Your task to perform on an android device: Open Reddit.com Image 0: 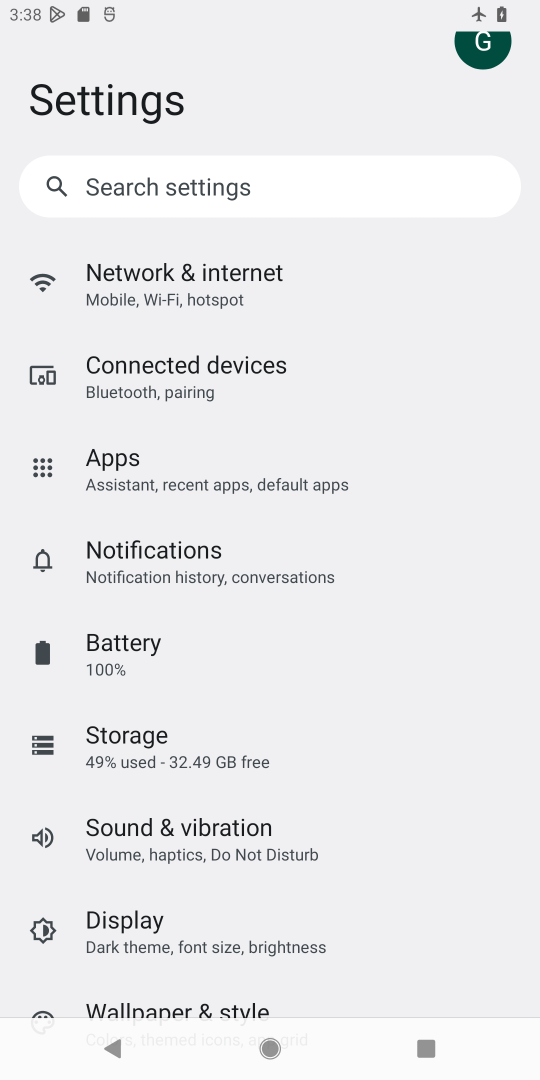
Step 0: press home button
Your task to perform on an android device: Open Reddit.com Image 1: 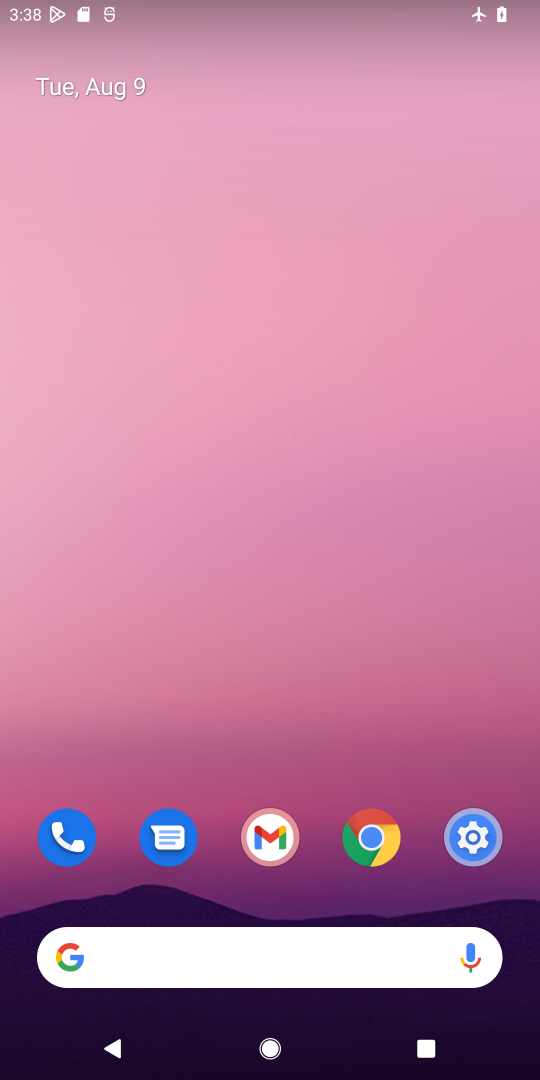
Step 1: drag from (221, 888) to (221, 266)
Your task to perform on an android device: Open Reddit.com Image 2: 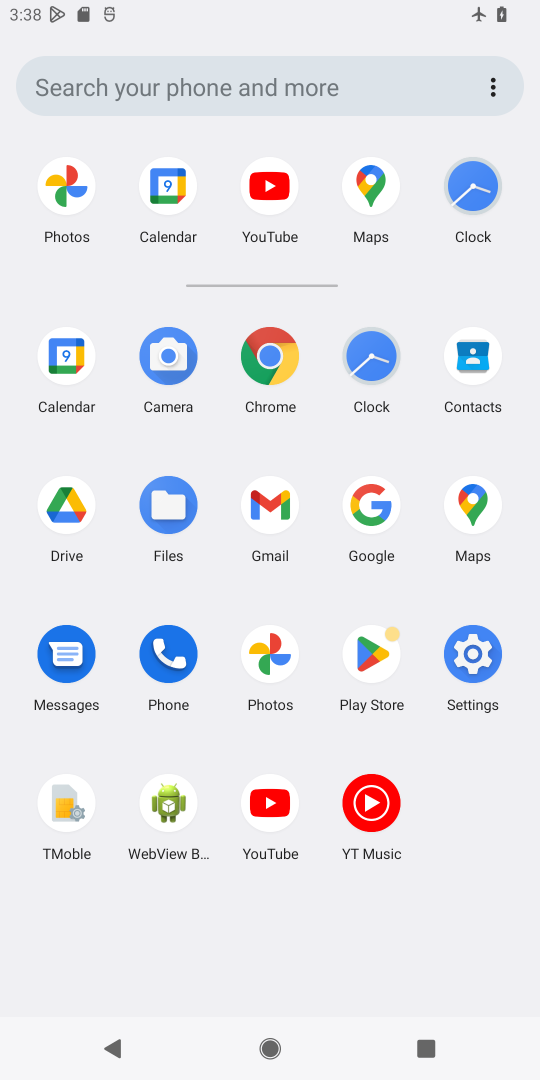
Step 2: click (277, 332)
Your task to perform on an android device: Open Reddit.com Image 3: 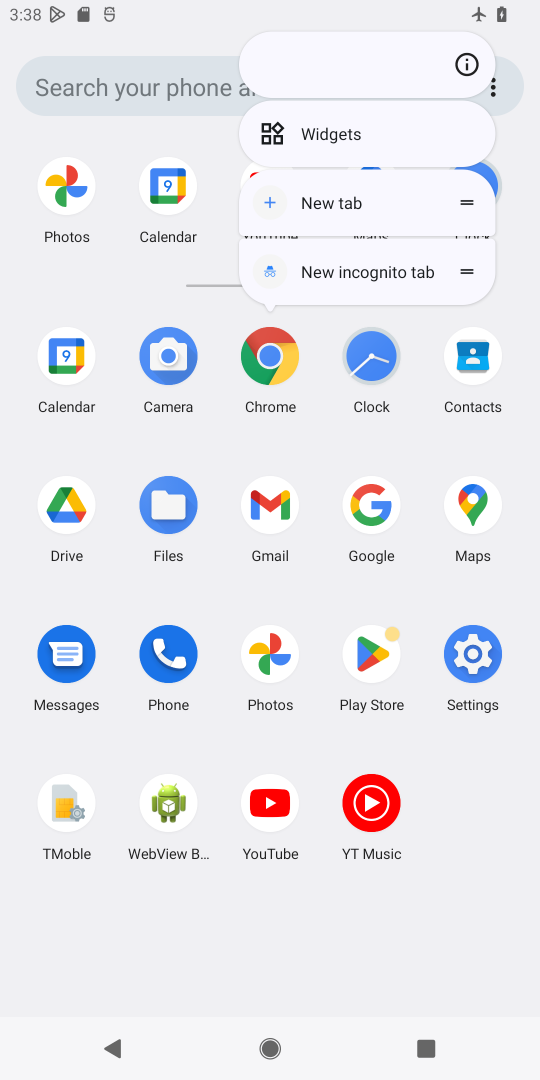
Step 3: click (277, 335)
Your task to perform on an android device: Open Reddit.com Image 4: 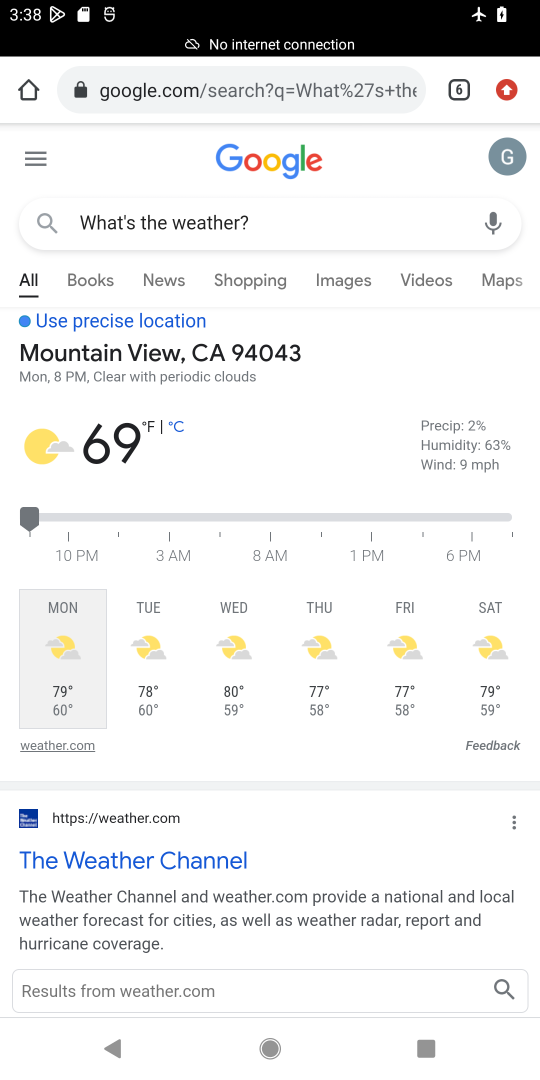
Step 4: click (499, 90)
Your task to perform on an android device: Open Reddit.com Image 5: 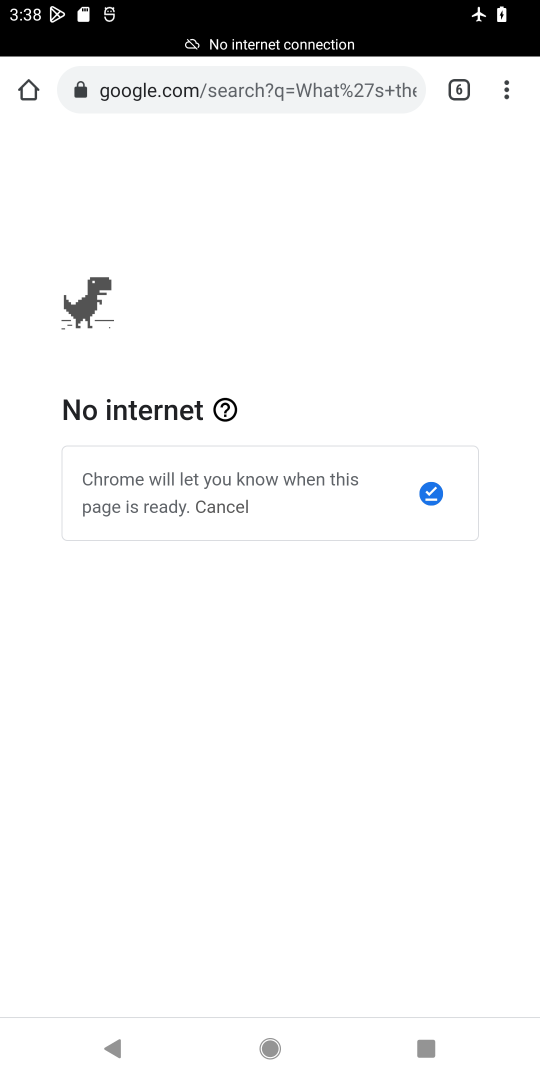
Step 5: click (519, 73)
Your task to perform on an android device: Open Reddit.com Image 6: 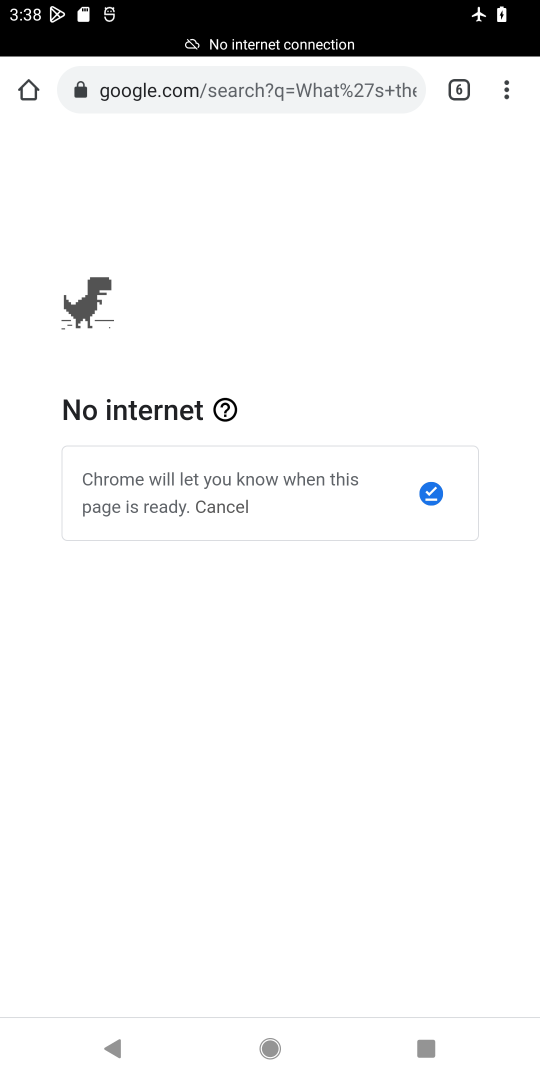
Step 6: click (507, 84)
Your task to perform on an android device: Open Reddit.com Image 7: 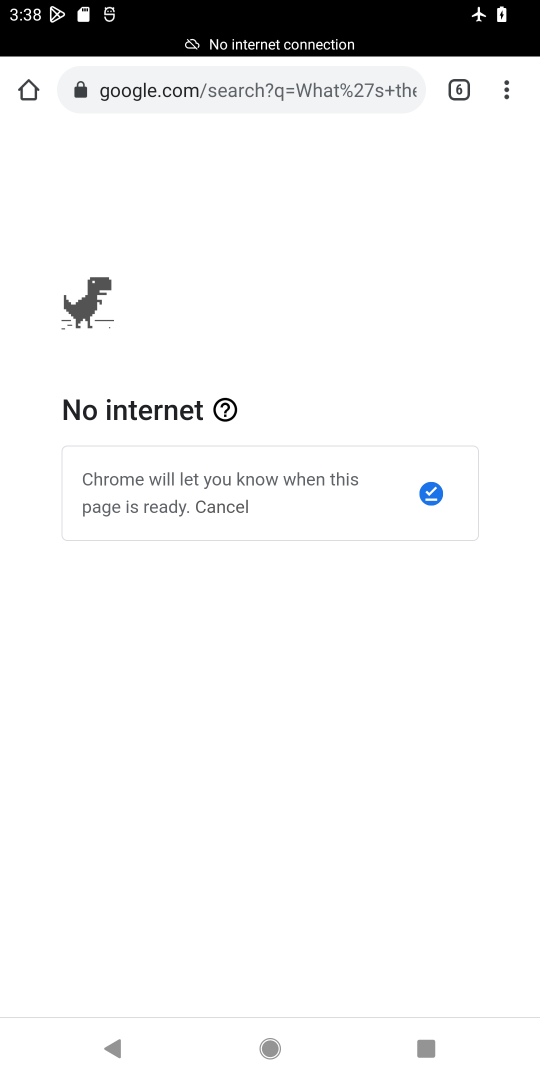
Step 7: click (507, 84)
Your task to perform on an android device: Open Reddit.com Image 8: 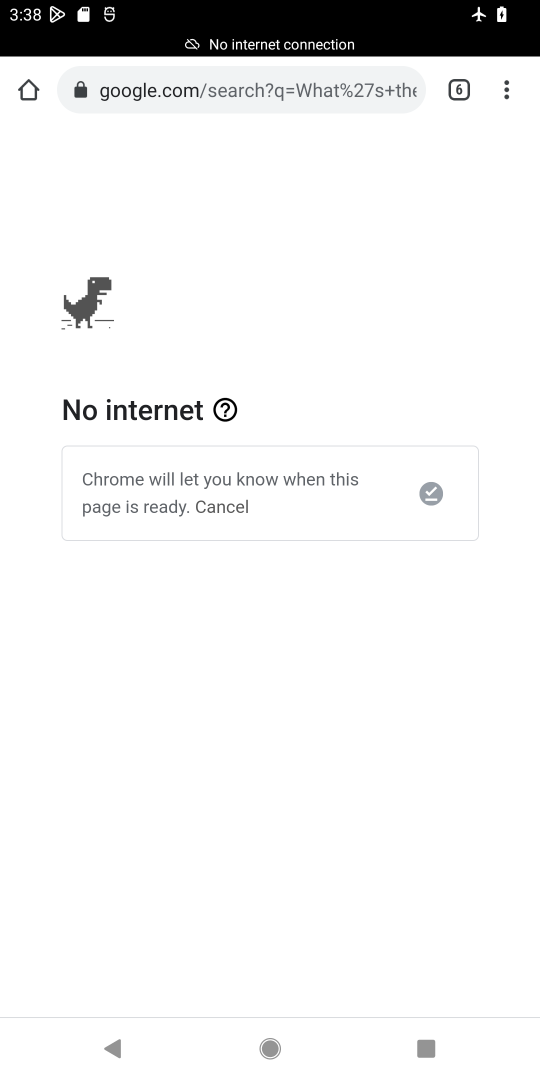
Step 8: click (517, 73)
Your task to perform on an android device: Open Reddit.com Image 9: 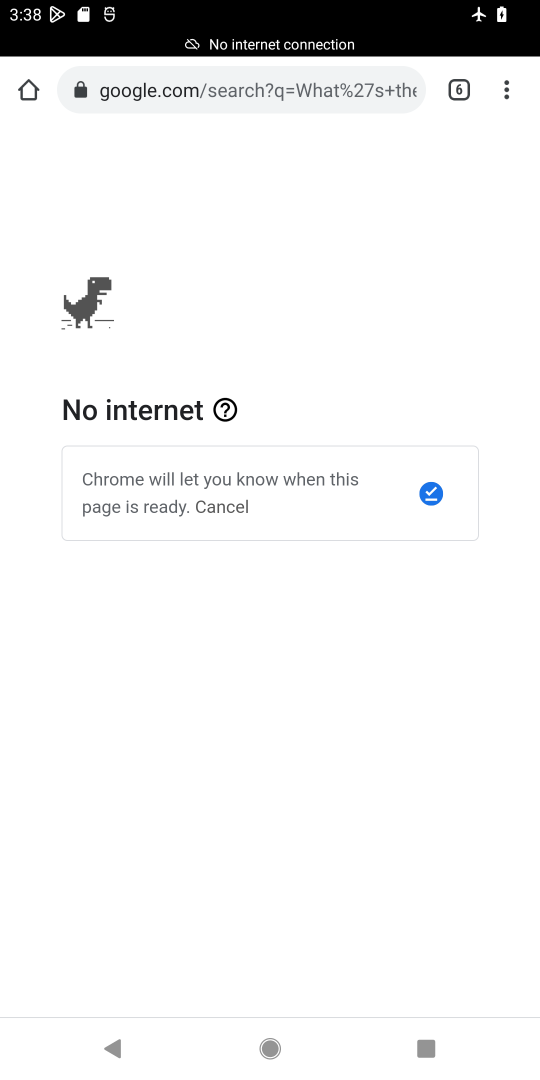
Step 9: click (508, 96)
Your task to perform on an android device: Open Reddit.com Image 10: 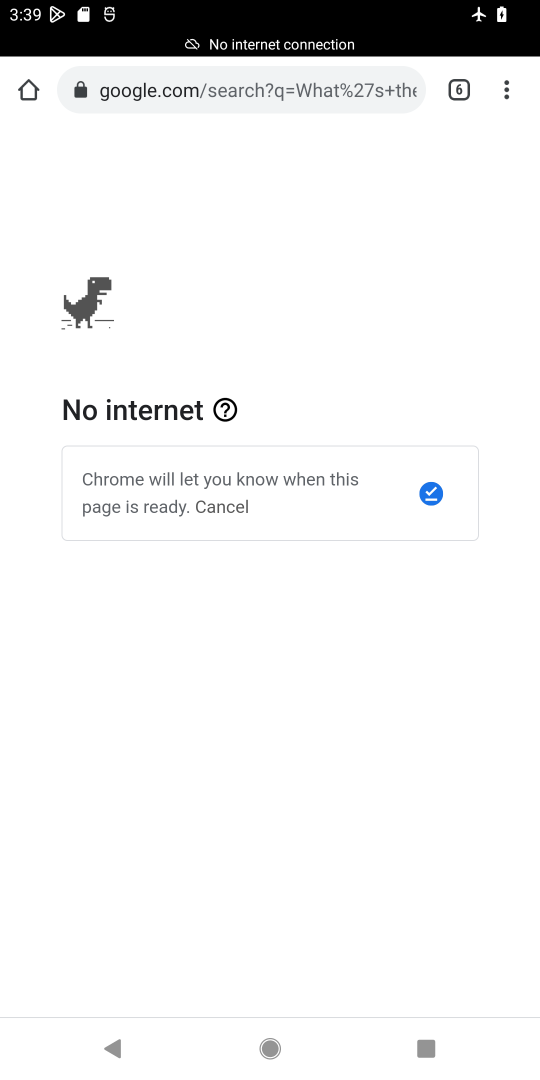
Step 10: click (495, 88)
Your task to perform on an android device: Open Reddit.com Image 11: 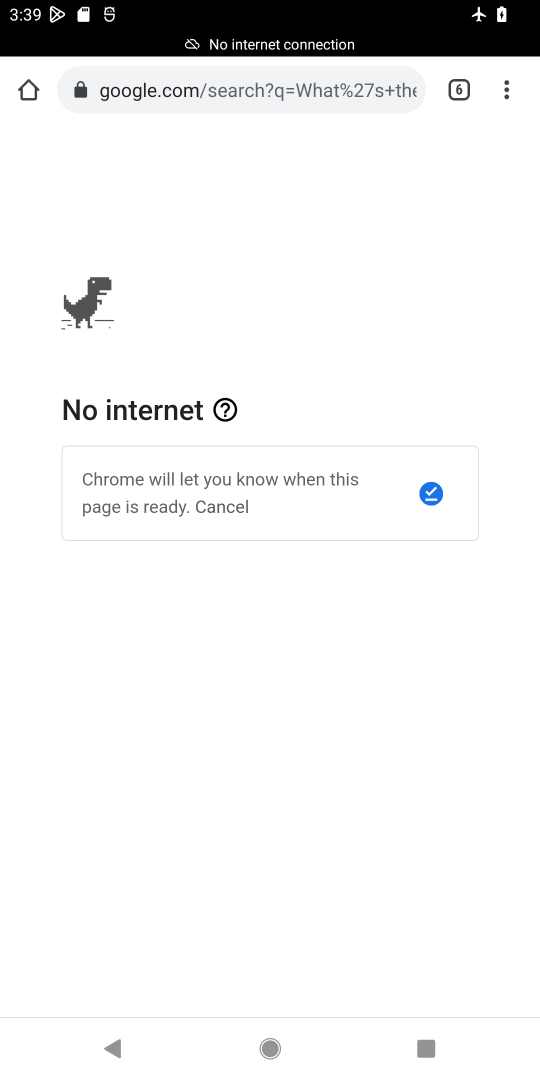
Step 11: click (495, 88)
Your task to perform on an android device: Open Reddit.com Image 12: 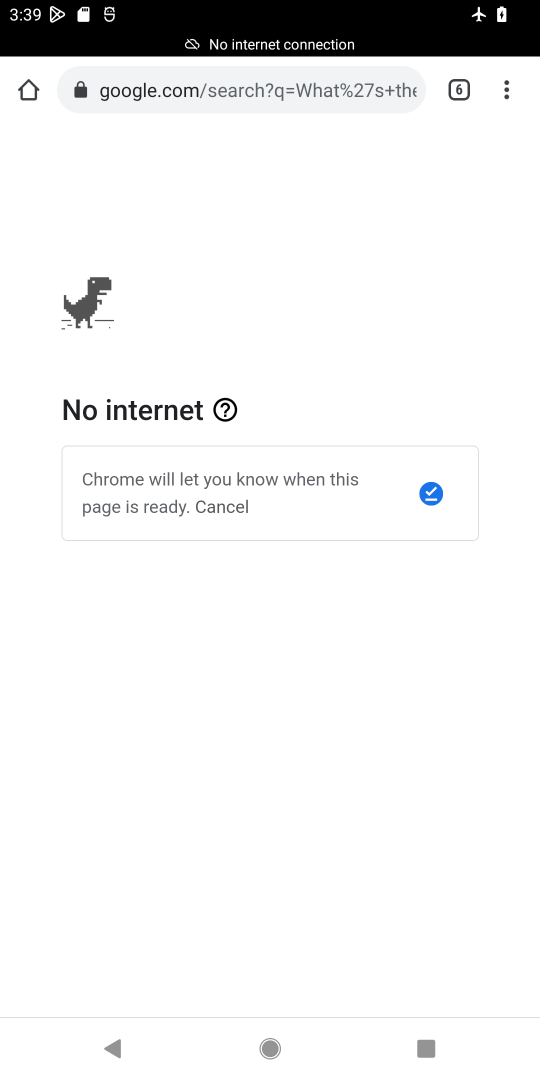
Step 12: click (495, 88)
Your task to perform on an android device: Open Reddit.com Image 13: 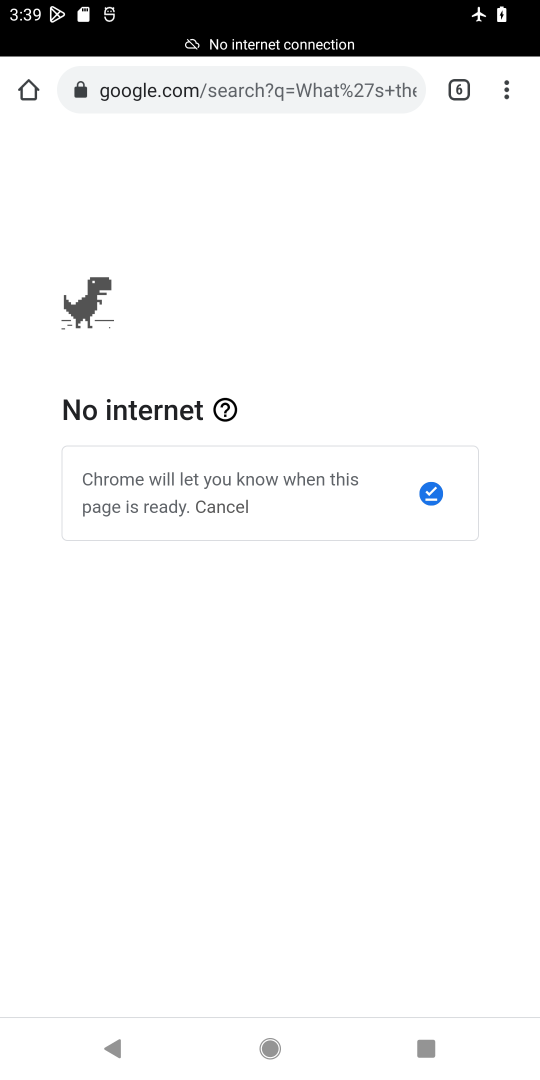
Step 13: click (500, 70)
Your task to perform on an android device: Open Reddit.com Image 14: 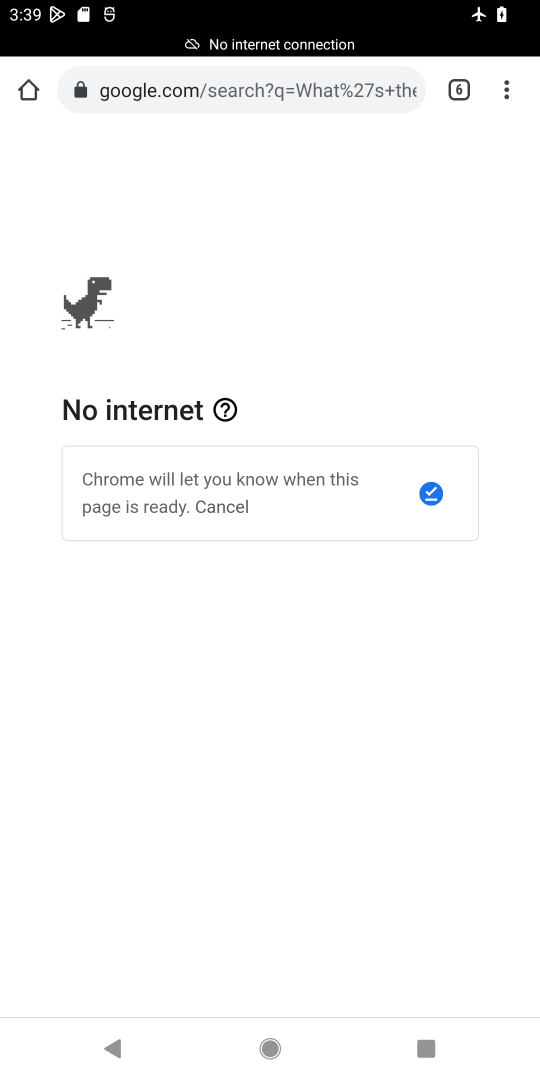
Step 14: click (509, 88)
Your task to perform on an android device: Open Reddit.com Image 15: 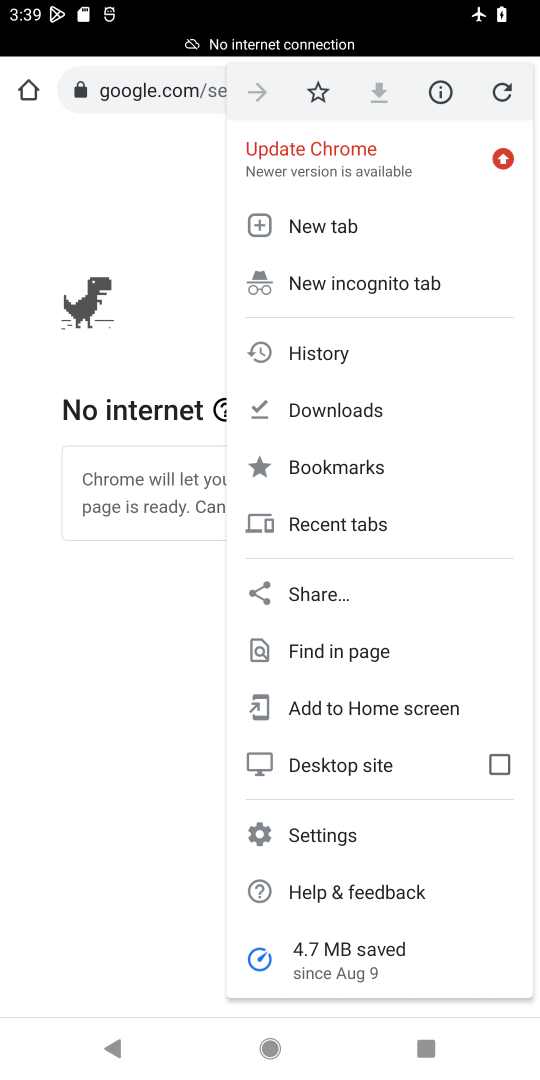
Step 15: click (313, 214)
Your task to perform on an android device: Open Reddit.com Image 16: 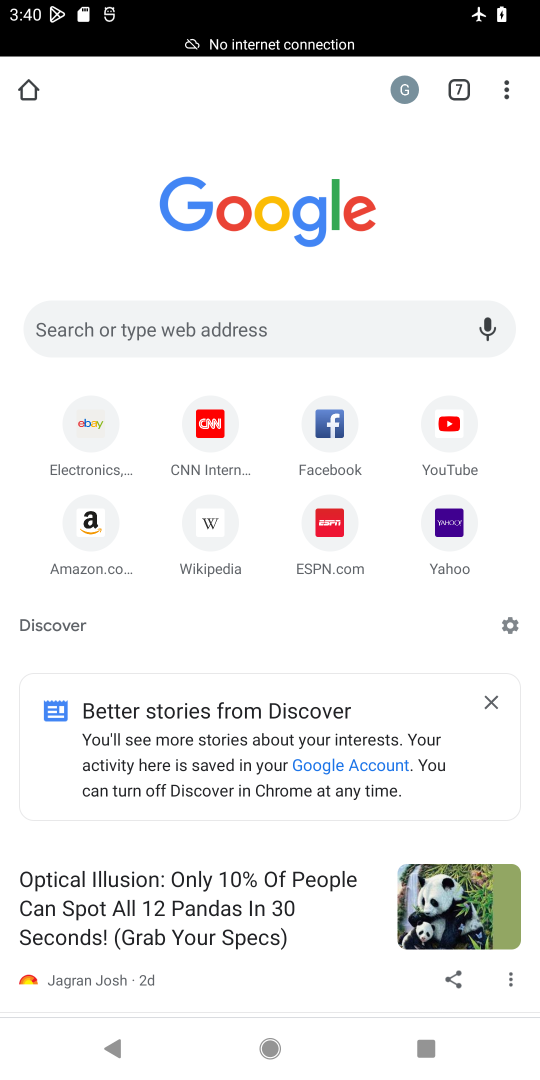
Step 16: click (326, 310)
Your task to perform on an android device: Open Reddit.com Image 17: 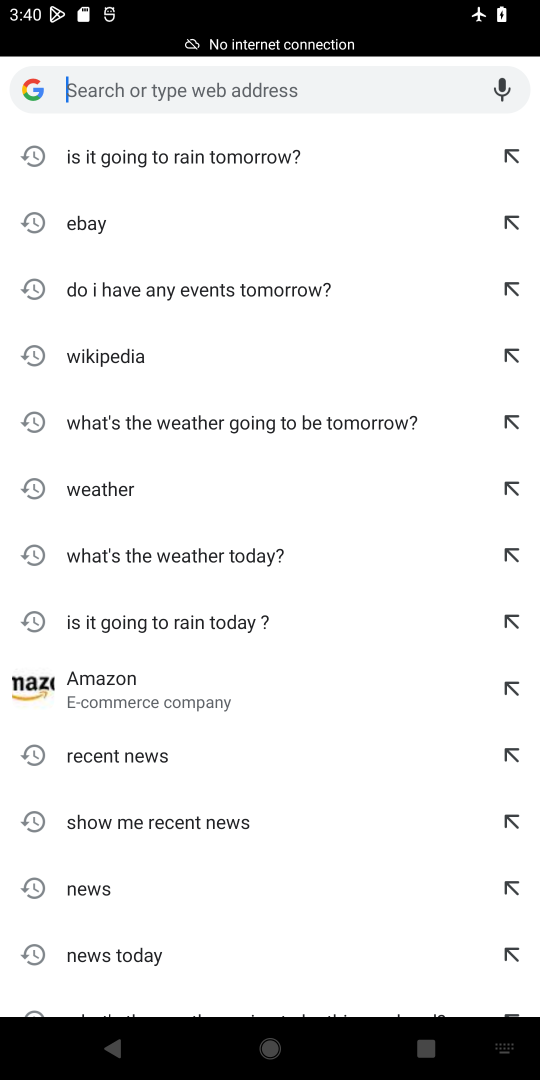
Step 17: type " Reddit.com "
Your task to perform on an android device: Open Reddit.com Image 18: 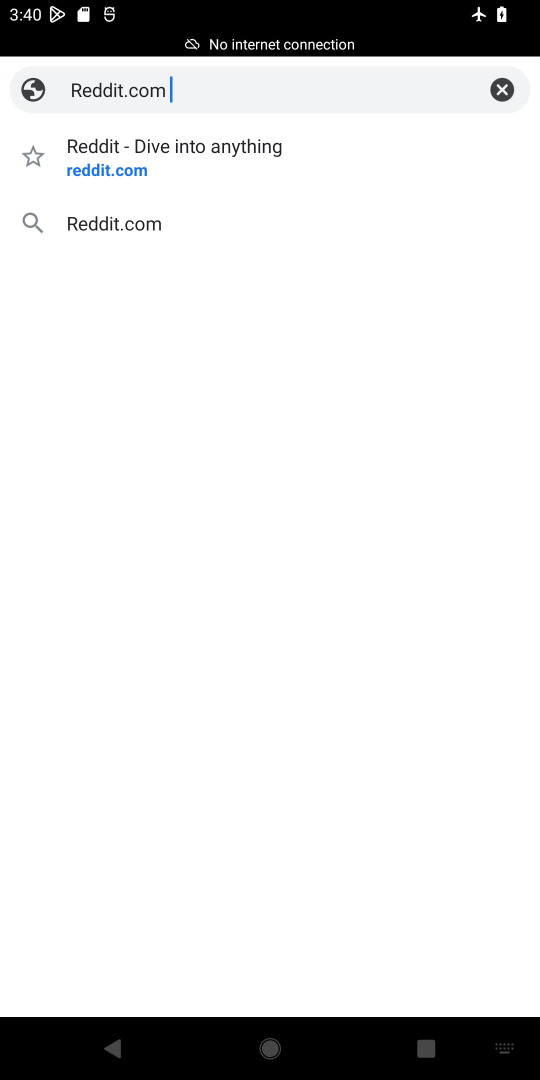
Step 18: click (228, 159)
Your task to perform on an android device: Open Reddit.com Image 19: 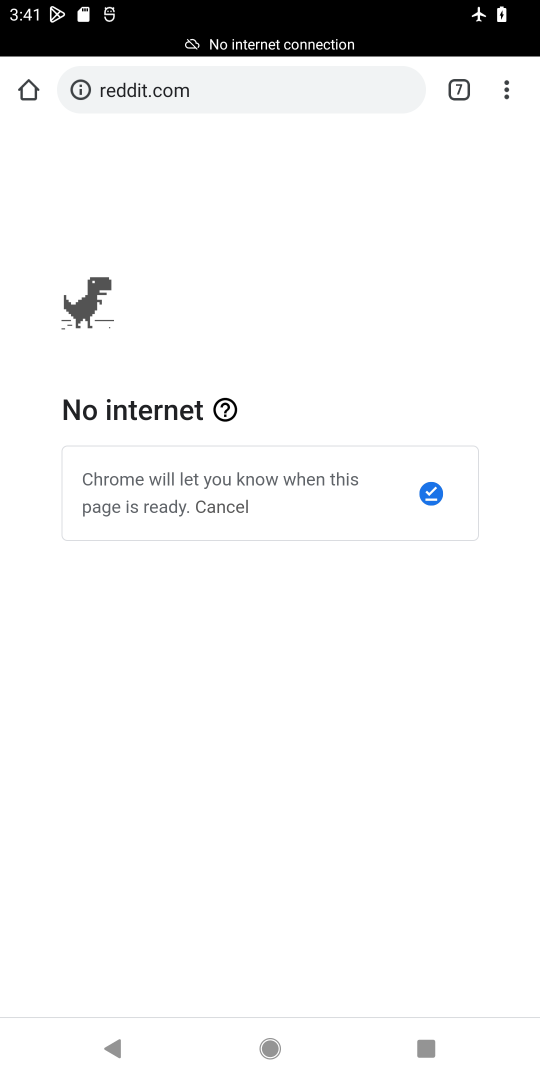
Step 19: task complete